Your task to perform on an android device: Go to ESPN.com Image 0: 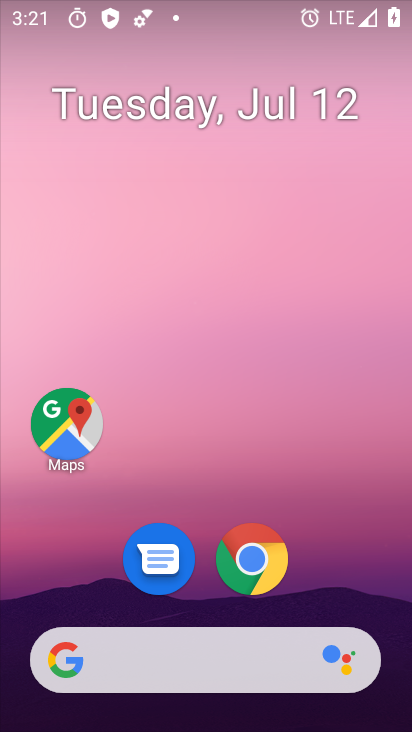
Step 0: drag from (379, 578) to (354, 262)
Your task to perform on an android device: Go to ESPN.com Image 1: 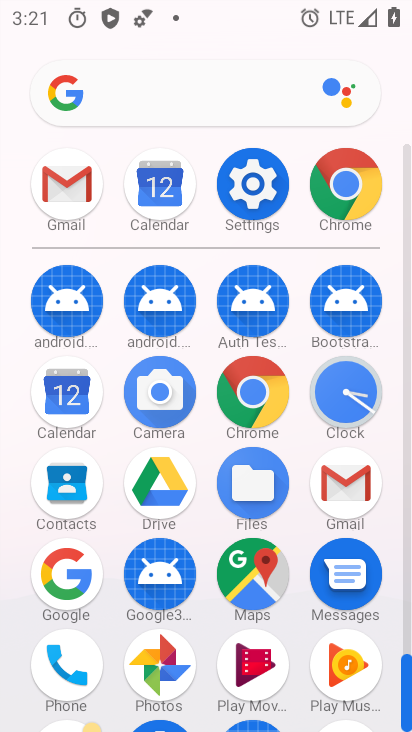
Step 1: click (271, 397)
Your task to perform on an android device: Go to ESPN.com Image 2: 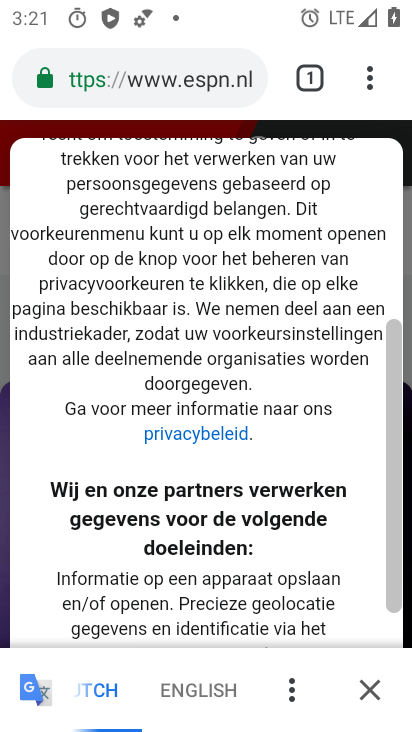
Step 2: click (218, 82)
Your task to perform on an android device: Go to ESPN.com Image 3: 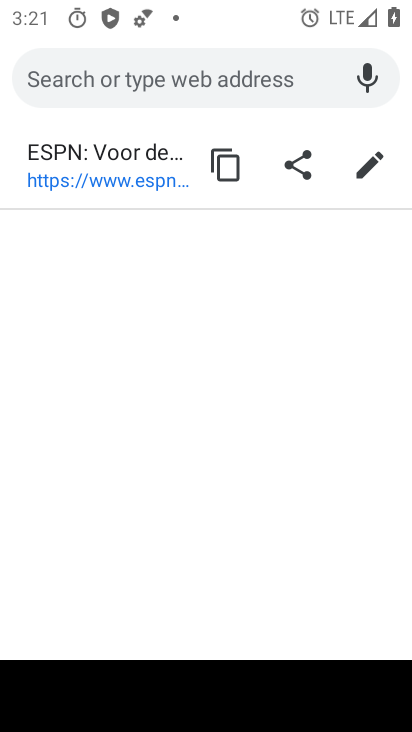
Step 3: type "espn.com"
Your task to perform on an android device: Go to ESPN.com Image 4: 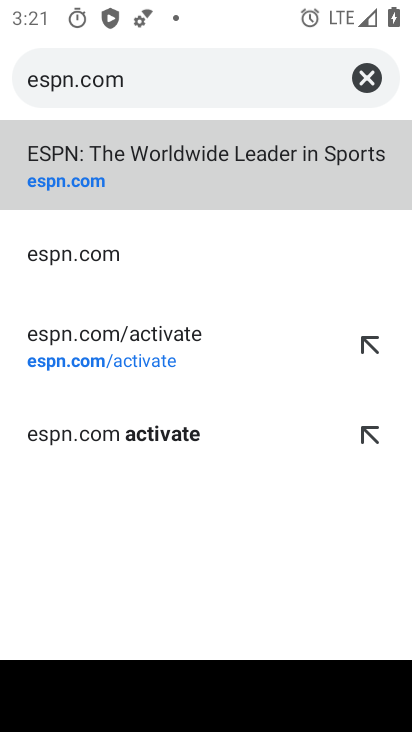
Step 4: click (149, 172)
Your task to perform on an android device: Go to ESPN.com Image 5: 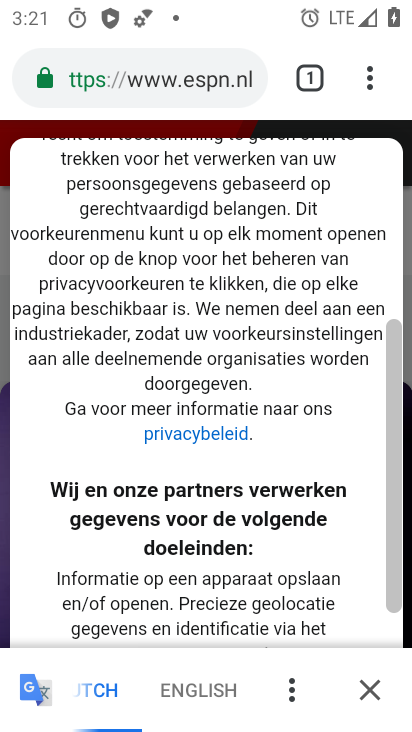
Step 5: task complete